Your task to perform on an android device: Open Maps and search for coffee Image 0: 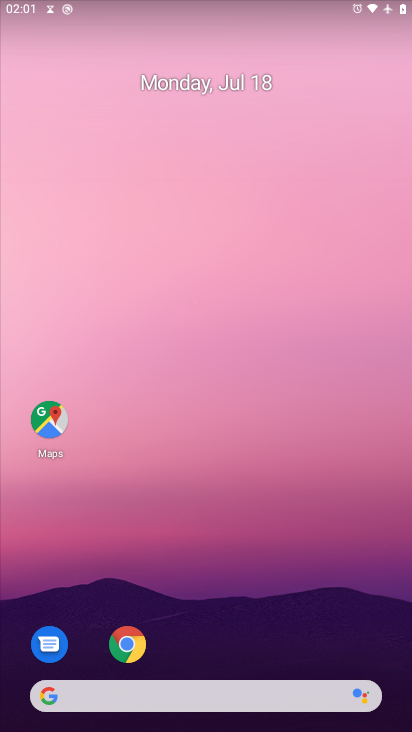
Step 0: press home button
Your task to perform on an android device: Open Maps and search for coffee Image 1: 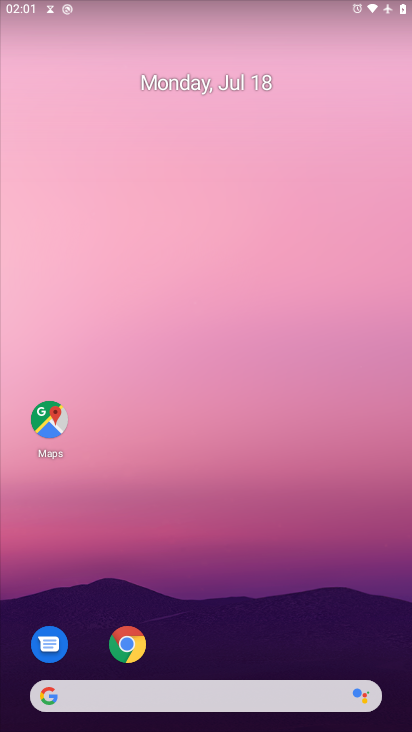
Step 1: drag from (254, 653) to (281, 102)
Your task to perform on an android device: Open Maps and search for coffee Image 2: 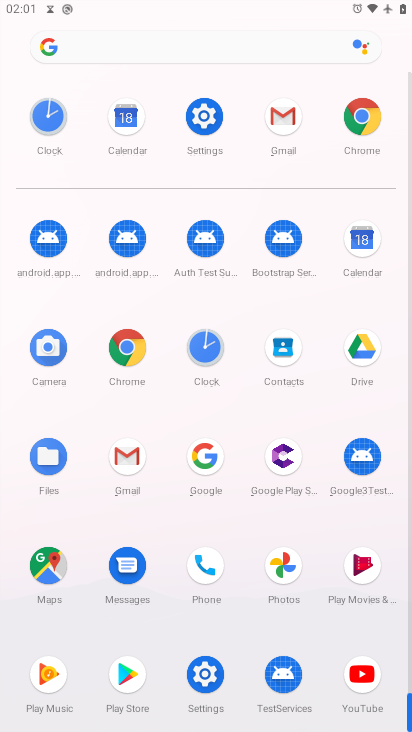
Step 2: click (47, 571)
Your task to perform on an android device: Open Maps and search for coffee Image 3: 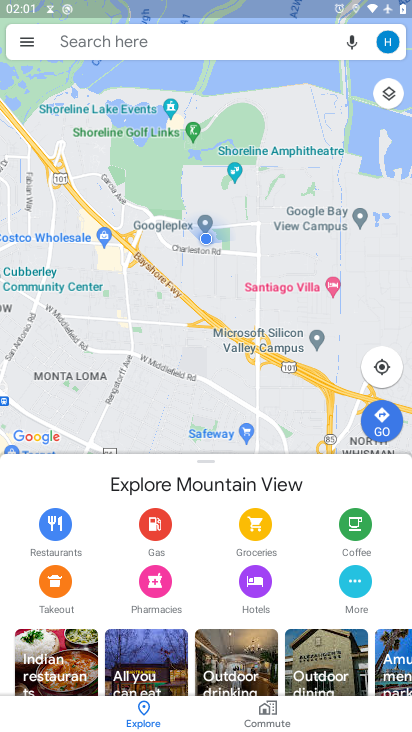
Step 3: click (137, 42)
Your task to perform on an android device: Open Maps and search for coffee Image 4: 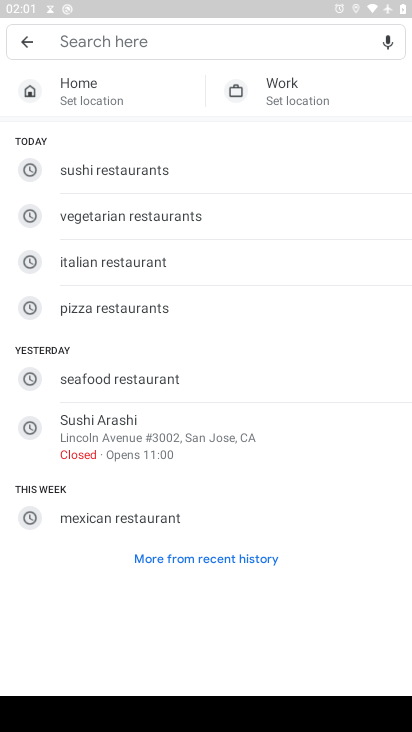
Step 4: type "coffee"
Your task to perform on an android device: Open Maps and search for coffee Image 5: 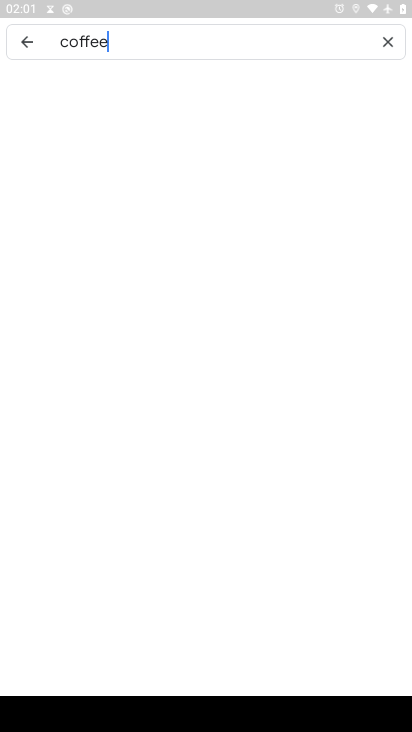
Step 5: press enter
Your task to perform on an android device: Open Maps and search for coffee Image 6: 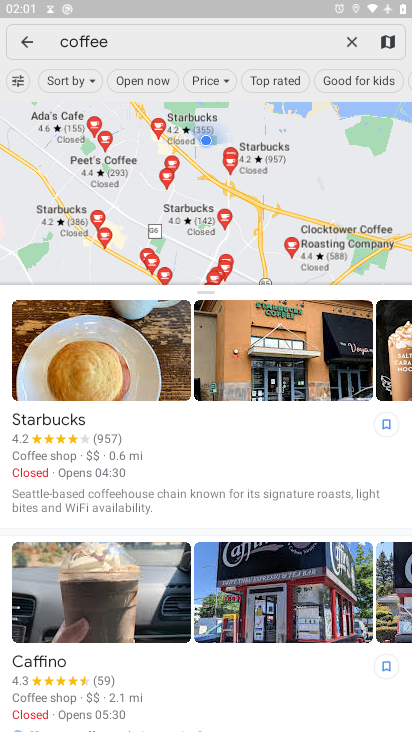
Step 6: task complete